Your task to perform on an android device: show emergency info Image 0: 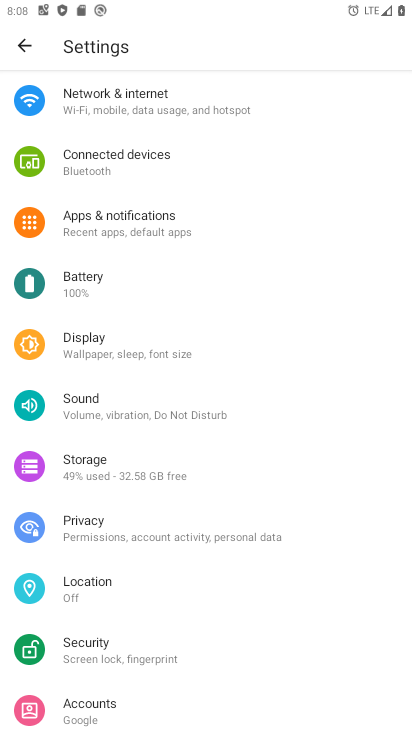
Step 0: drag from (249, 573) to (241, 174)
Your task to perform on an android device: show emergency info Image 1: 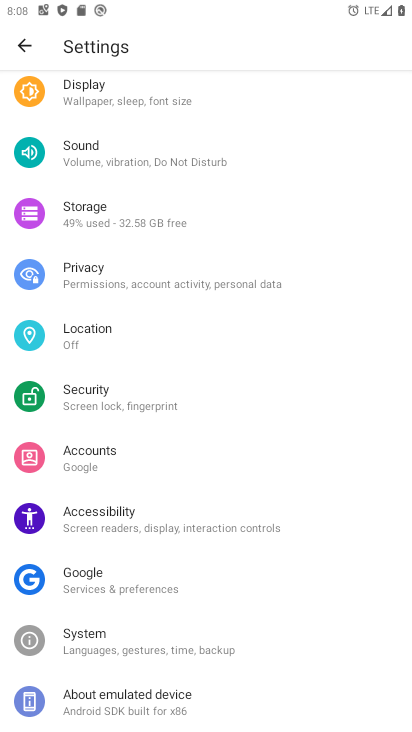
Step 1: click (121, 693)
Your task to perform on an android device: show emergency info Image 2: 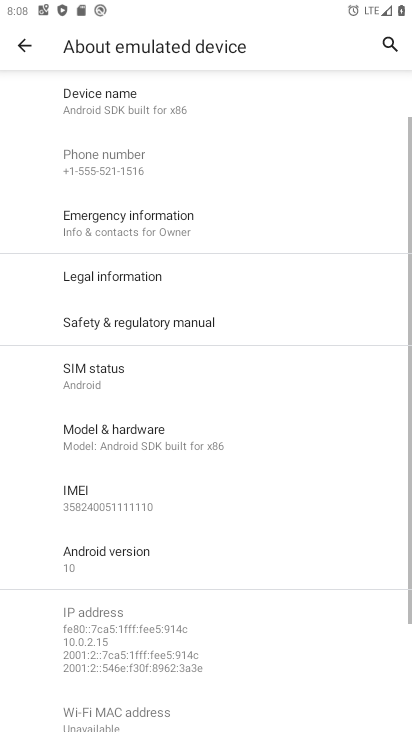
Step 2: click (169, 220)
Your task to perform on an android device: show emergency info Image 3: 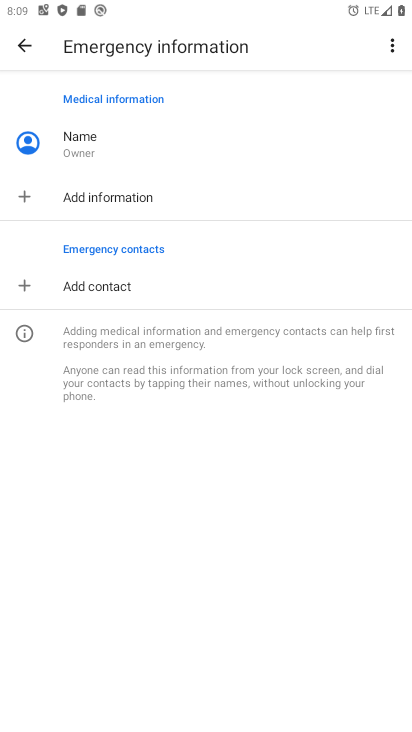
Step 3: task complete